Your task to perform on an android device: Open calendar and show me the second week of next month Image 0: 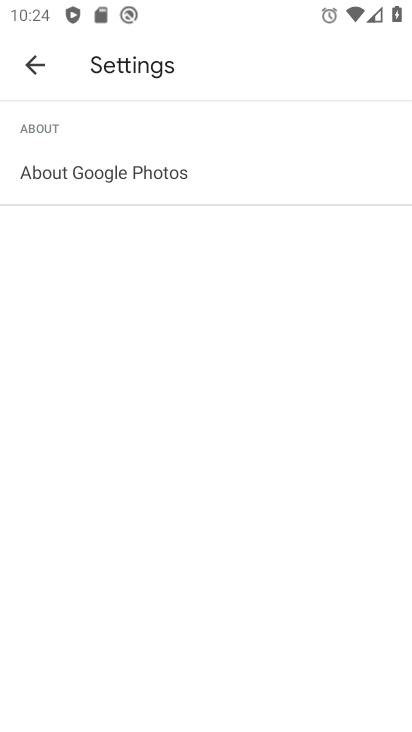
Step 0: press home button
Your task to perform on an android device: Open calendar and show me the second week of next month Image 1: 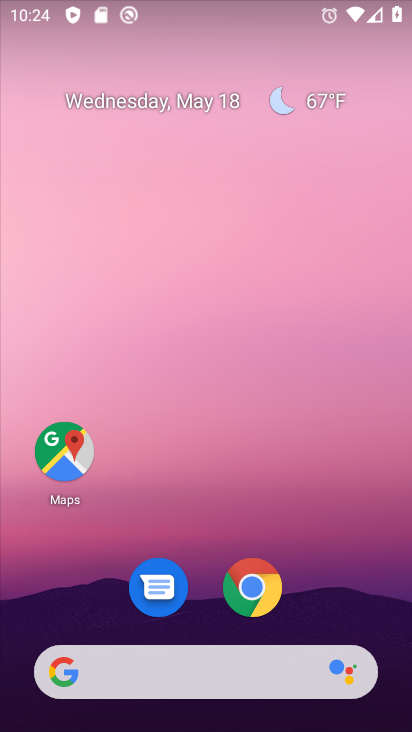
Step 1: drag from (365, 557) to (342, 251)
Your task to perform on an android device: Open calendar and show me the second week of next month Image 2: 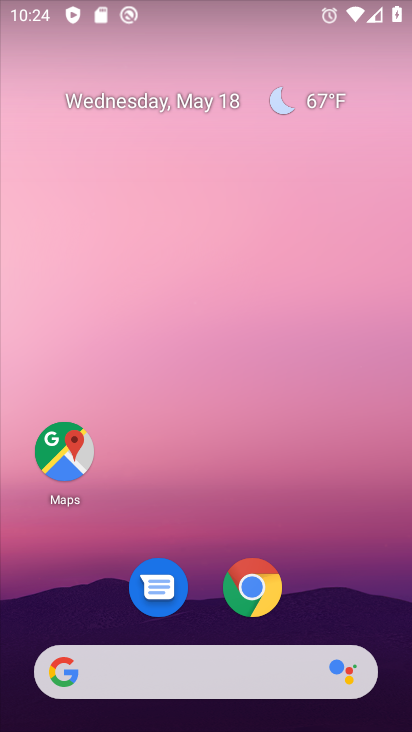
Step 2: drag from (320, 586) to (377, 104)
Your task to perform on an android device: Open calendar and show me the second week of next month Image 3: 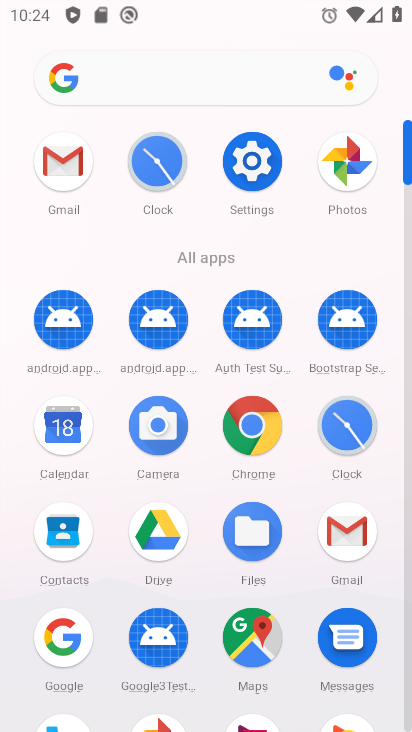
Step 3: click (62, 440)
Your task to perform on an android device: Open calendar and show me the second week of next month Image 4: 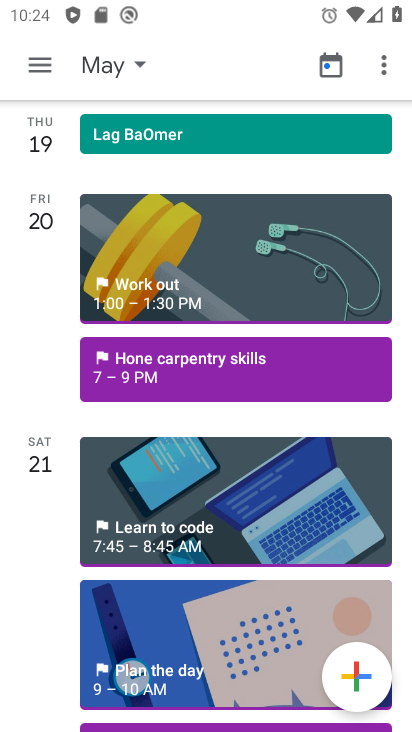
Step 4: click (43, 69)
Your task to perform on an android device: Open calendar and show me the second week of next month Image 5: 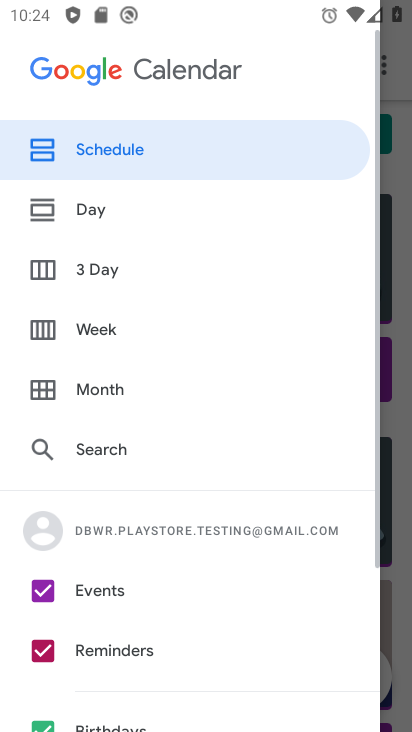
Step 5: click (118, 341)
Your task to perform on an android device: Open calendar and show me the second week of next month Image 6: 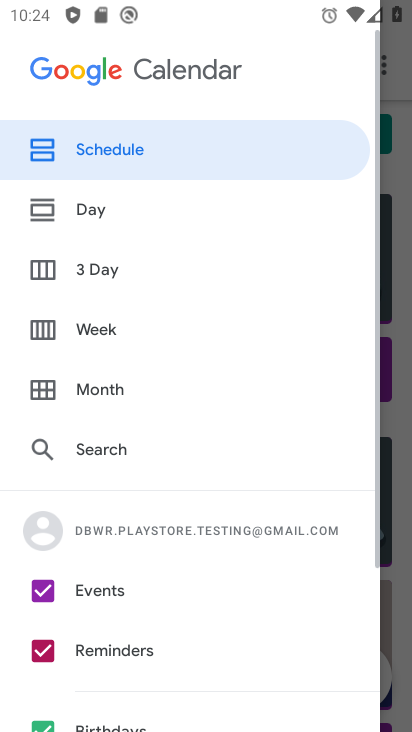
Step 6: click (119, 340)
Your task to perform on an android device: Open calendar and show me the second week of next month Image 7: 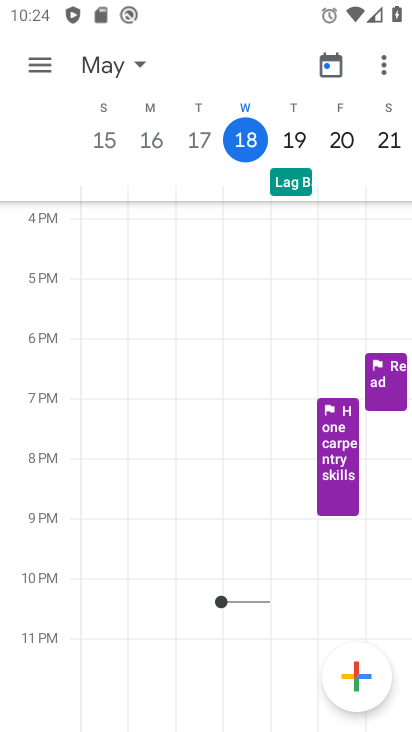
Step 7: drag from (307, 312) to (164, 311)
Your task to perform on an android device: Open calendar and show me the second week of next month Image 8: 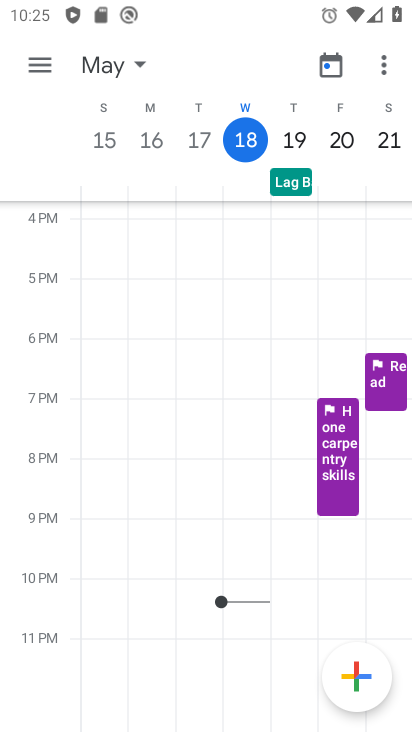
Step 8: drag from (322, 252) to (0, 168)
Your task to perform on an android device: Open calendar and show me the second week of next month Image 9: 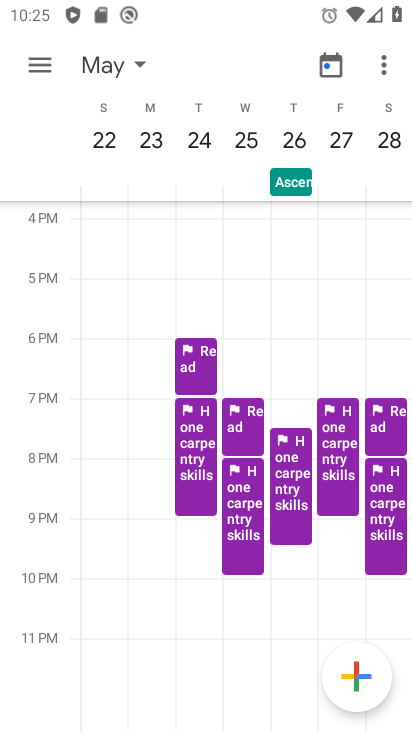
Step 9: click (110, 64)
Your task to perform on an android device: Open calendar and show me the second week of next month Image 10: 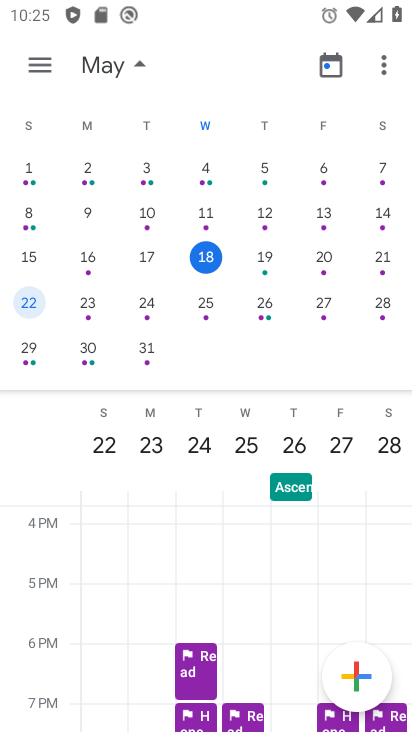
Step 10: task complete